Your task to perform on an android device: toggle airplane mode Image 0: 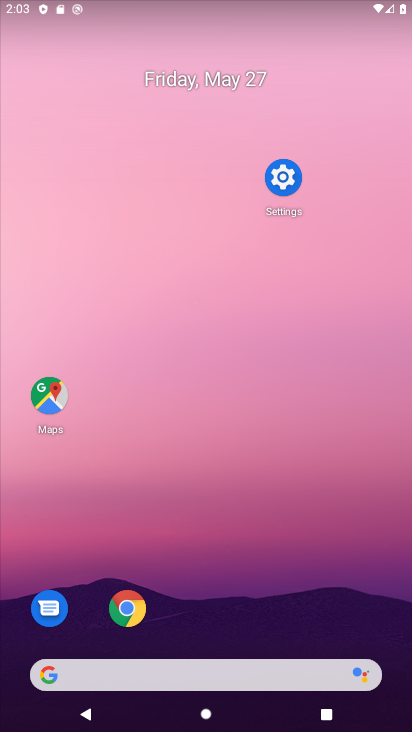
Step 0: drag from (253, 3) to (328, 537)
Your task to perform on an android device: toggle airplane mode Image 1: 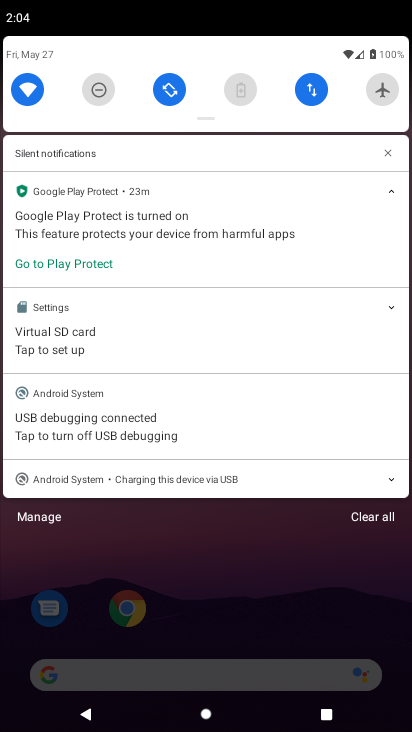
Step 1: click (381, 89)
Your task to perform on an android device: toggle airplane mode Image 2: 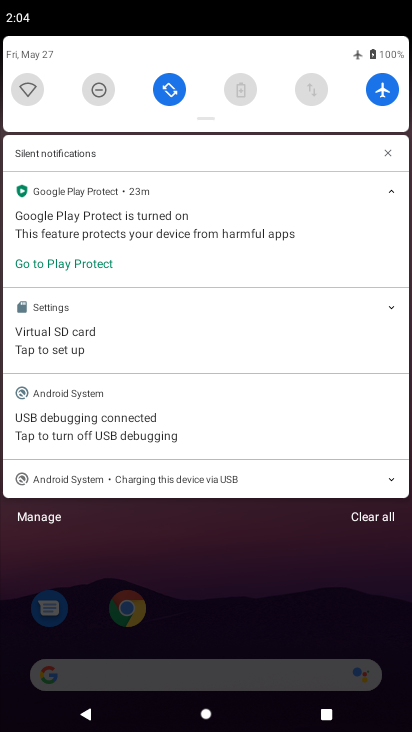
Step 2: task complete